Your task to perform on an android device: allow cookies in the chrome app Image 0: 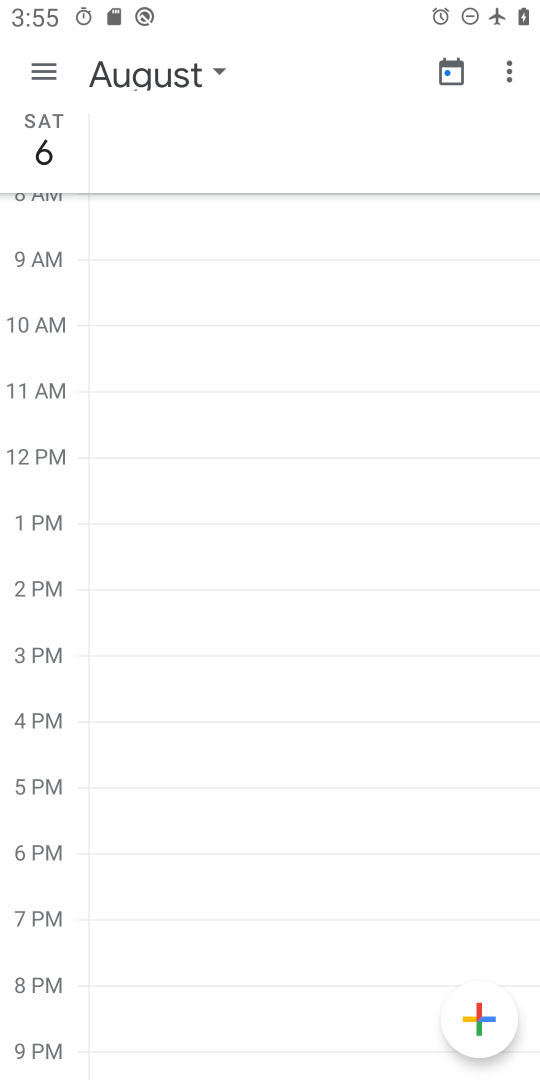
Step 0: press home button
Your task to perform on an android device: allow cookies in the chrome app Image 1: 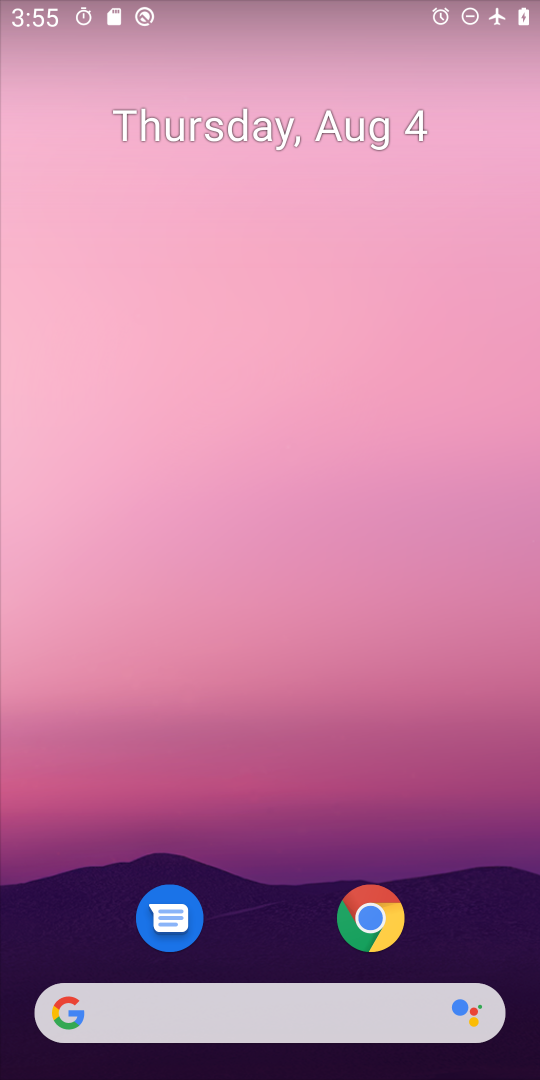
Step 1: click (378, 899)
Your task to perform on an android device: allow cookies in the chrome app Image 2: 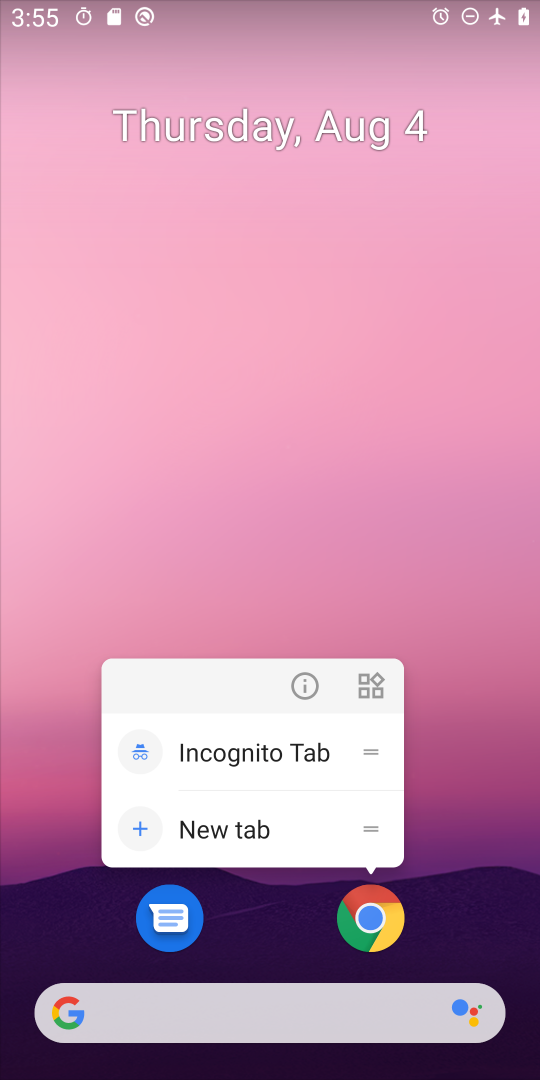
Step 2: click (370, 904)
Your task to perform on an android device: allow cookies in the chrome app Image 3: 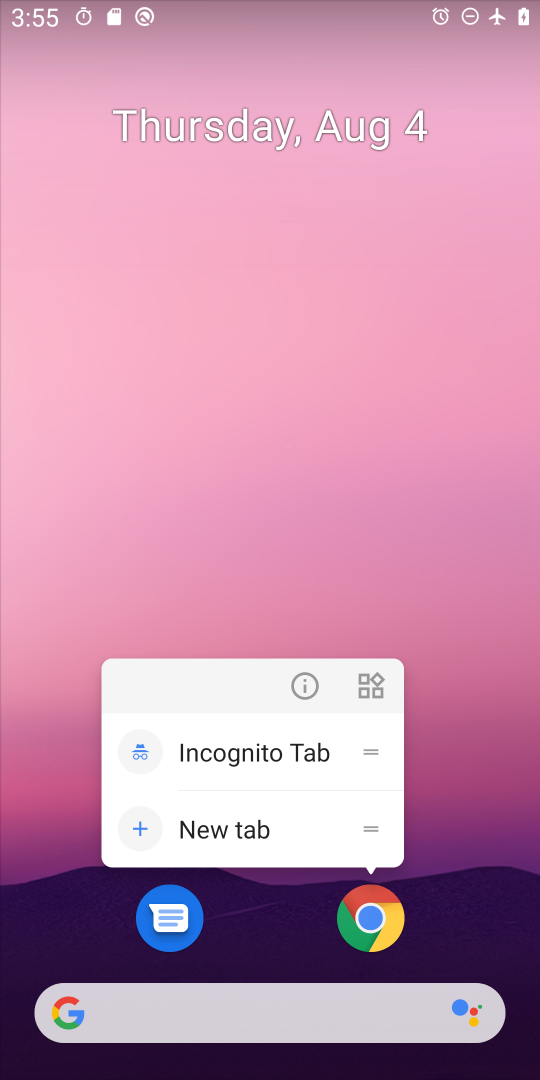
Step 3: click (370, 904)
Your task to perform on an android device: allow cookies in the chrome app Image 4: 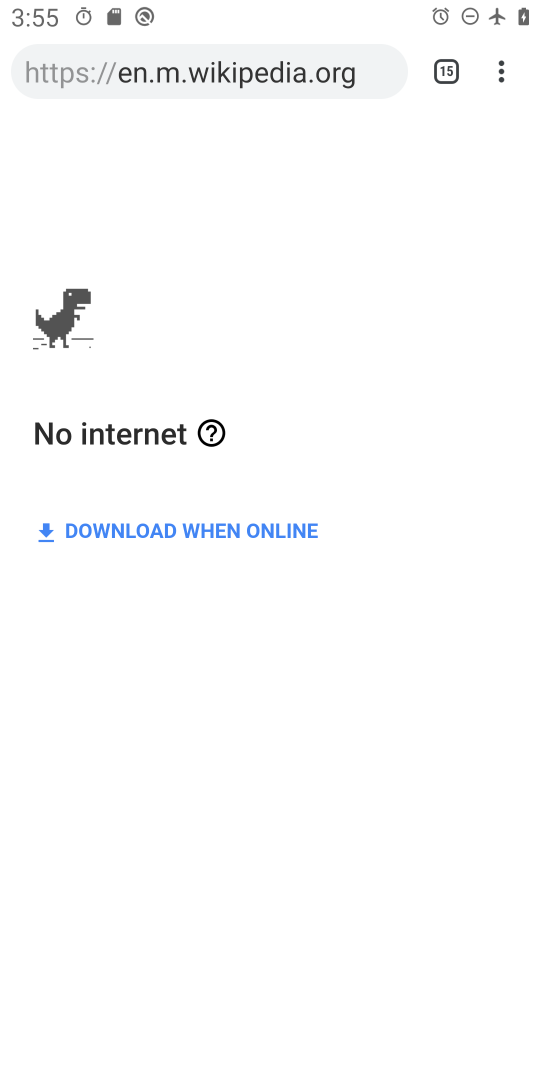
Step 4: click (506, 79)
Your task to perform on an android device: allow cookies in the chrome app Image 5: 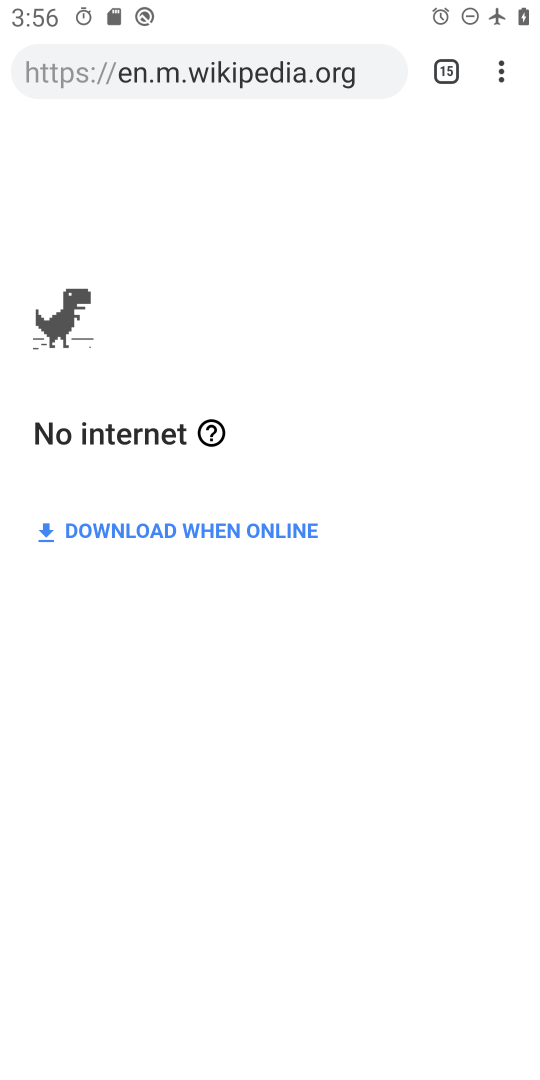
Step 5: click (500, 65)
Your task to perform on an android device: allow cookies in the chrome app Image 6: 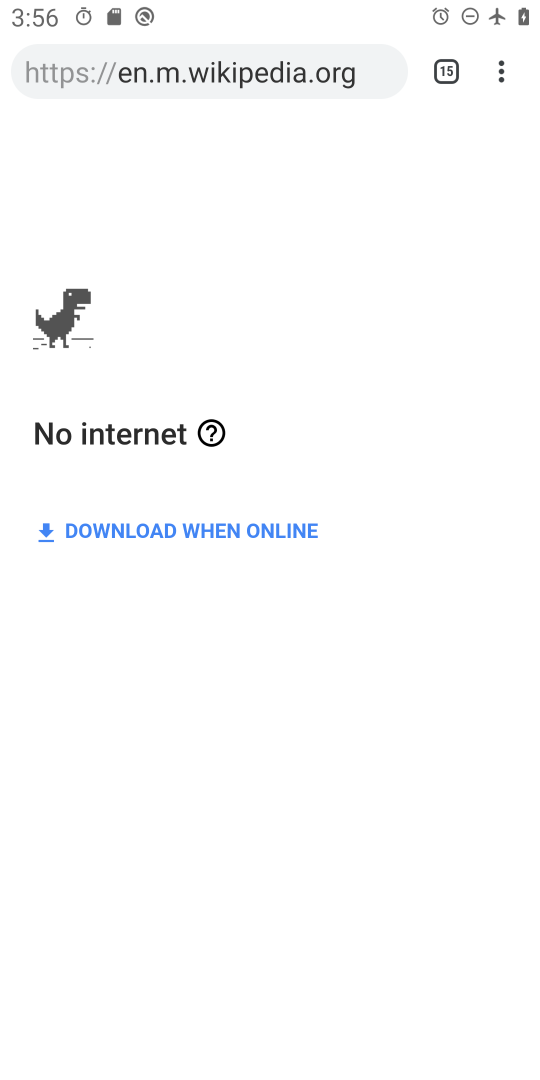
Step 6: drag from (500, 65) to (283, 794)
Your task to perform on an android device: allow cookies in the chrome app Image 7: 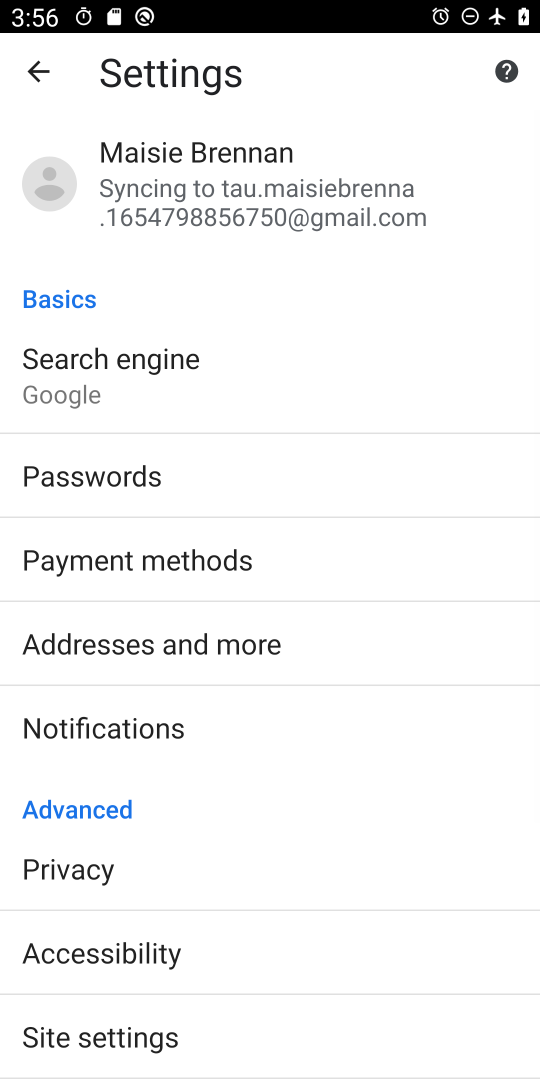
Step 7: drag from (216, 850) to (247, 317)
Your task to perform on an android device: allow cookies in the chrome app Image 8: 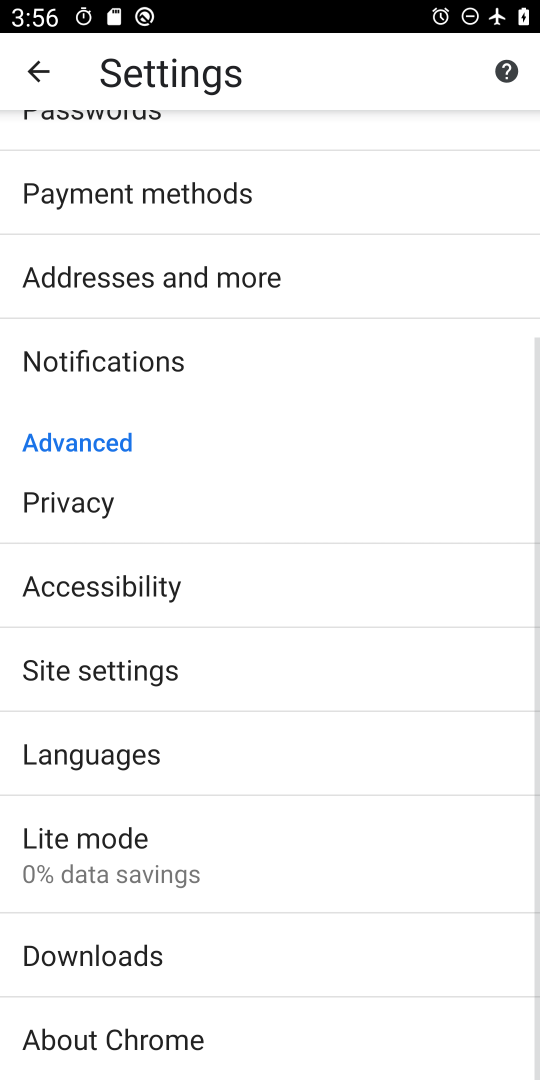
Step 8: click (91, 655)
Your task to perform on an android device: allow cookies in the chrome app Image 9: 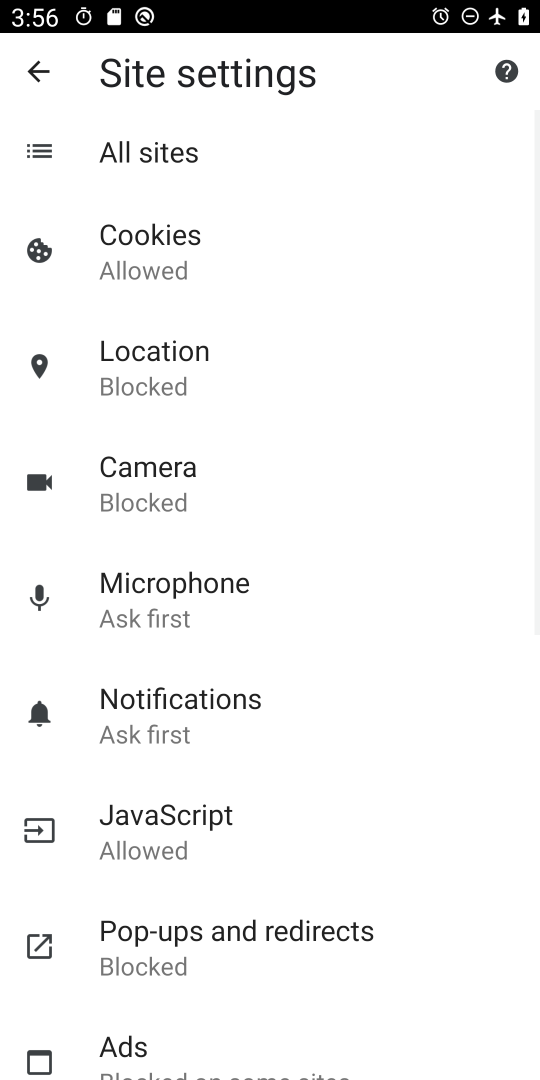
Step 9: click (188, 287)
Your task to perform on an android device: allow cookies in the chrome app Image 10: 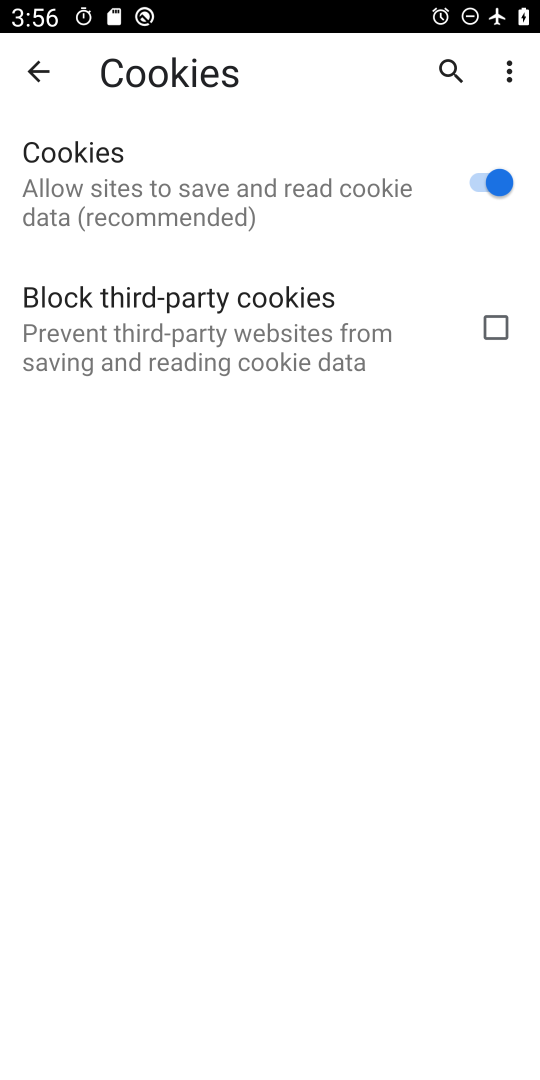
Step 10: task complete